Your task to perform on an android device: Open the Play Movies app and select the watchlist tab. Image 0: 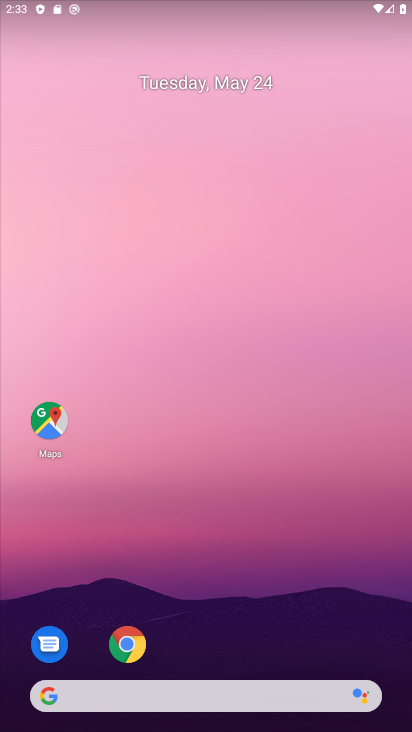
Step 0: drag from (279, 640) to (306, 221)
Your task to perform on an android device: Open the Play Movies app and select the watchlist tab. Image 1: 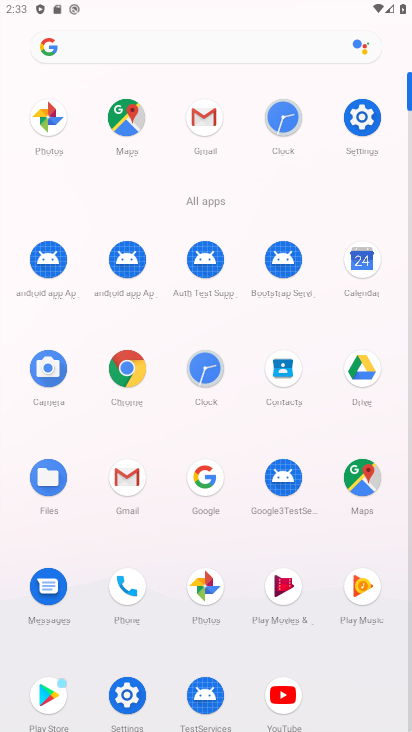
Step 1: click (288, 581)
Your task to perform on an android device: Open the Play Movies app and select the watchlist tab. Image 2: 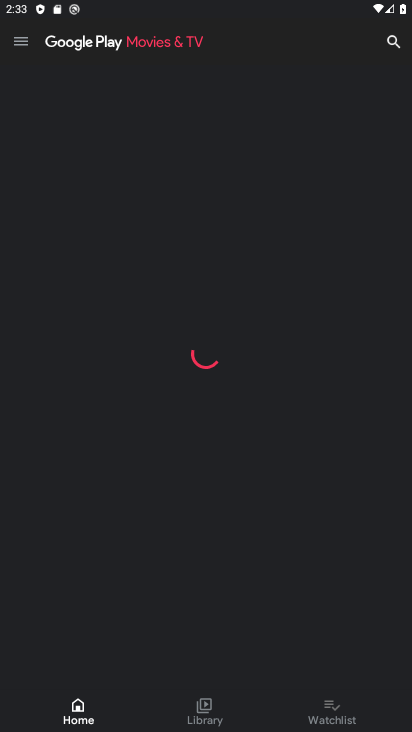
Step 2: click (316, 703)
Your task to perform on an android device: Open the Play Movies app and select the watchlist tab. Image 3: 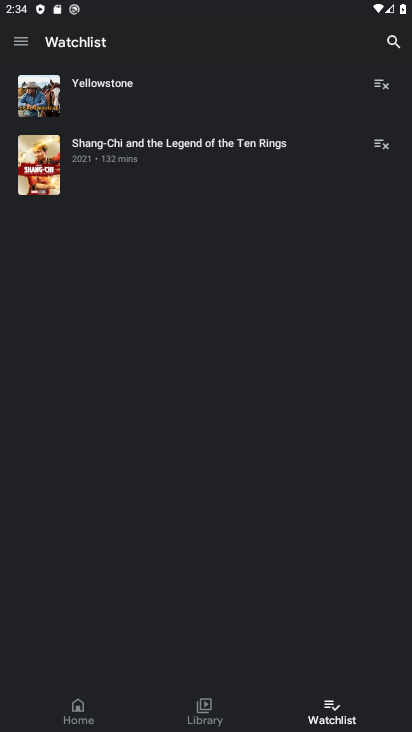
Step 3: task complete